Your task to perform on an android device: Go to privacy settings Image 0: 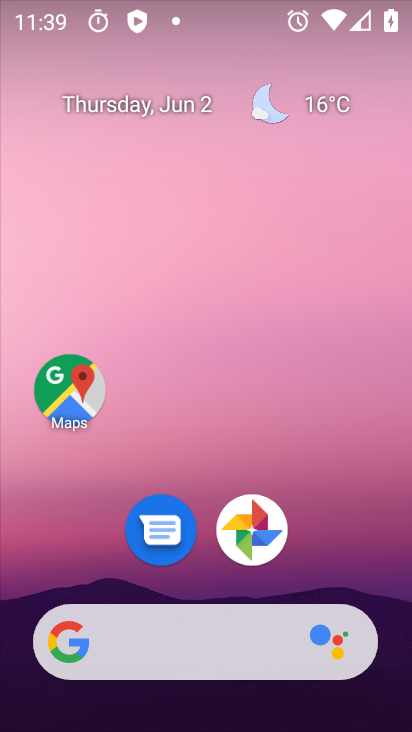
Step 0: drag from (192, 510) to (172, 183)
Your task to perform on an android device: Go to privacy settings Image 1: 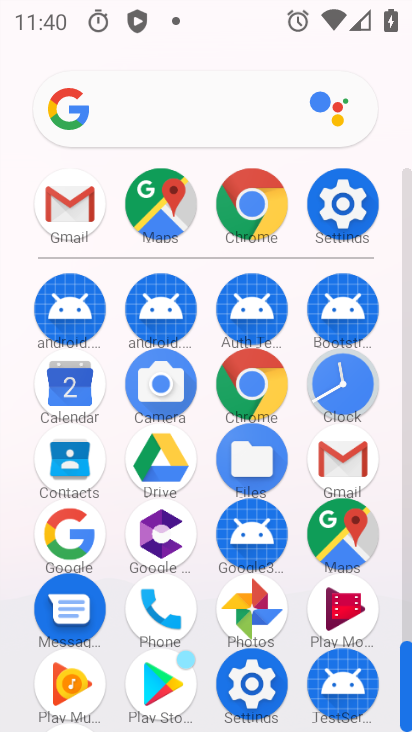
Step 1: click (251, 696)
Your task to perform on an android device: Go to privacy settings Image 2: 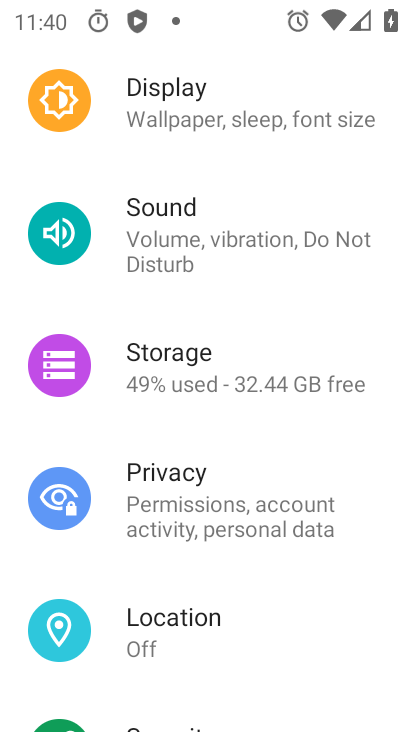
Step 2: click (245, 695)
Your task to perform on an android device: Go to privacy settings Image 3: 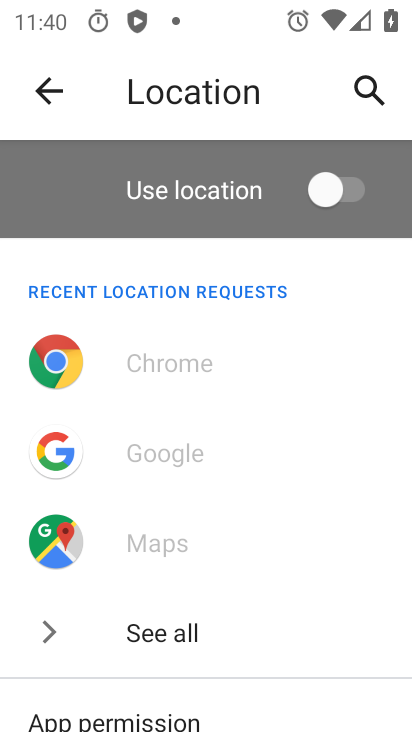
Step 3: click (50, 108)
Your task to perform on an android device: Go to privacy settings Image 4: 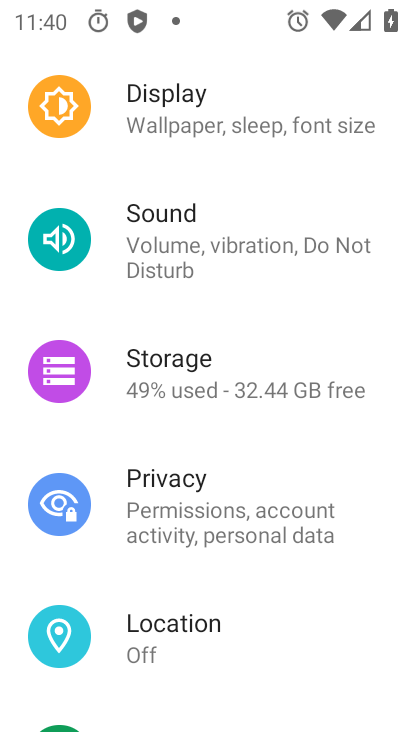
Step 4: click (180, 358)
Your task to perform on an android device: Go to privacy settings Image 5: 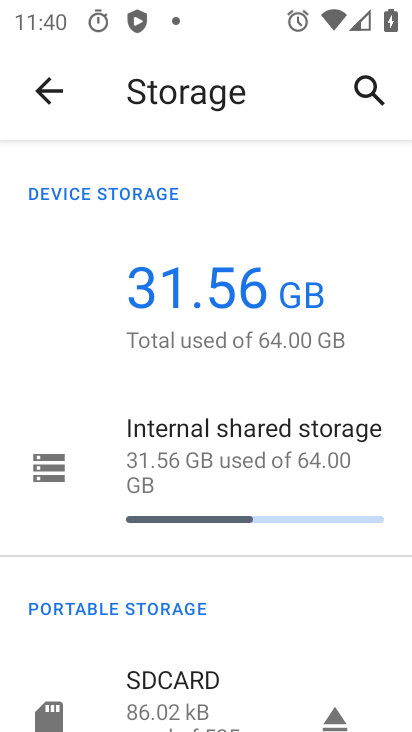
Step 5: click (43, 86)
Your task to perform on an android device: Go to privacy settings Image 6: 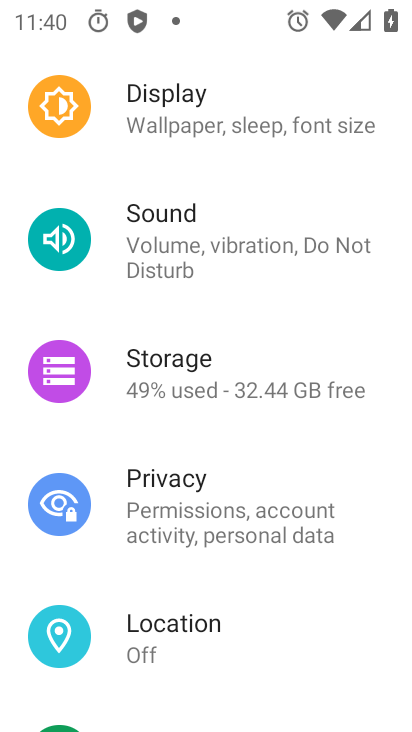
Step 6: click (170, 506)
Your task to perform on an android device: Go to privacy settings Image 7: 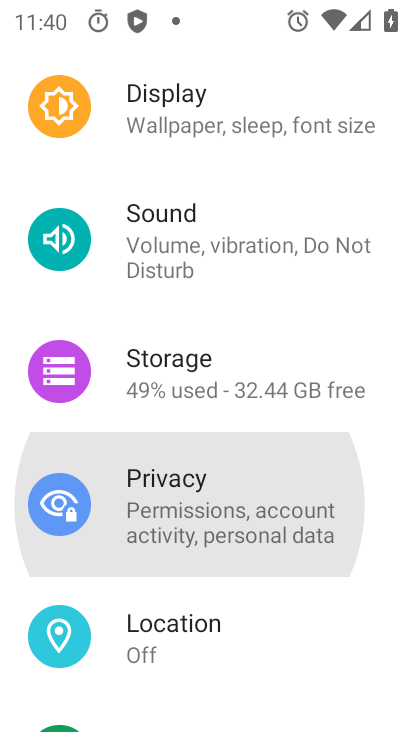
Step 7: click (170, 506)
Your task to perform on an android device: Go to privacy settings Image 8: 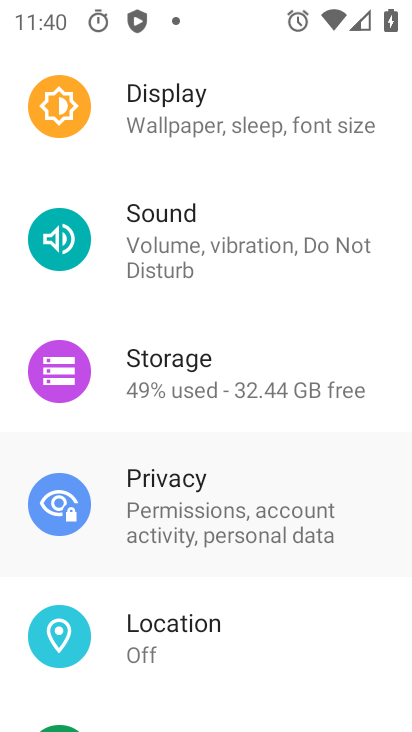
Step 8: click (170, 506)
Your task to perform on an android device: Go to privacy settings Image 9: 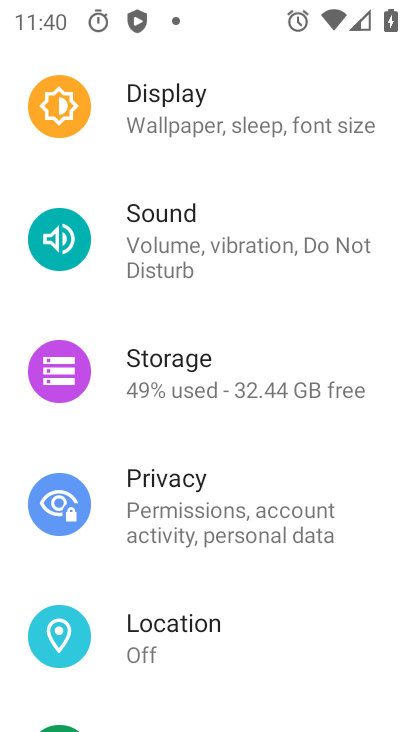
Step 9: click (170, 506)
Your task to perform on an android device: Go to privacy settings Image 10: 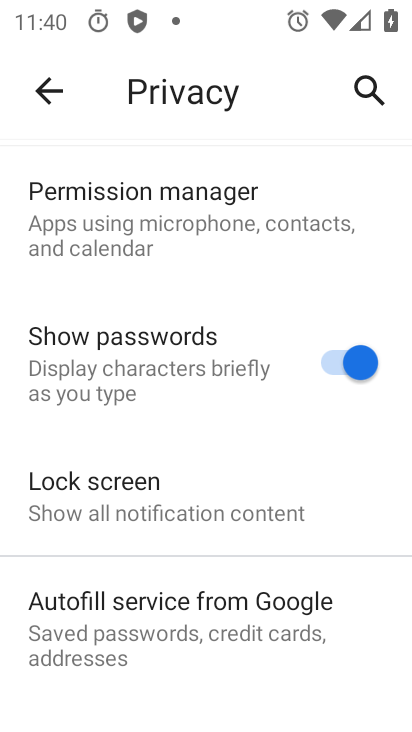
Step 10: task complete